Your task to perform on an android device: choose inbox layout in the gmail app Image 0: 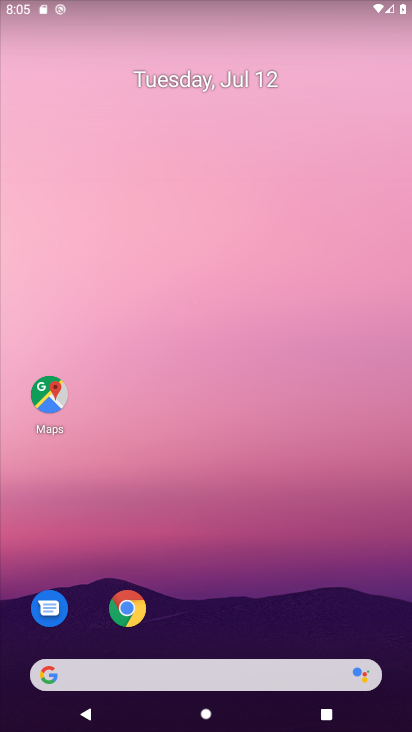
Step 0: drag from (202, 633) to (290, 219)
Your task to perform on an android device: choose inbox layout in the gmail app Image 1: 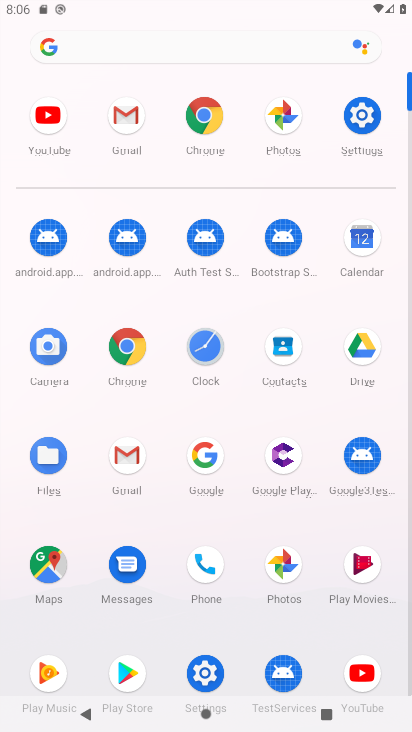
Step 1: click (127, 132)
Your task to perform on an android device: choose inbox layout in the gmail app Image 2: 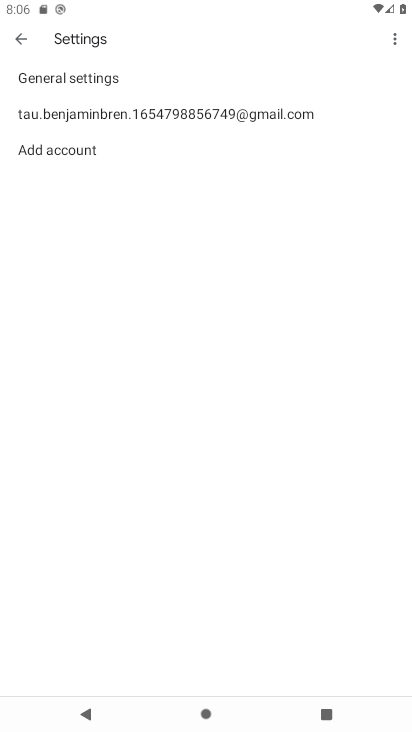
Step 2: click (148, 113)
Your task to perform on an android device: choose inbox layout in the gmail app Image 3: 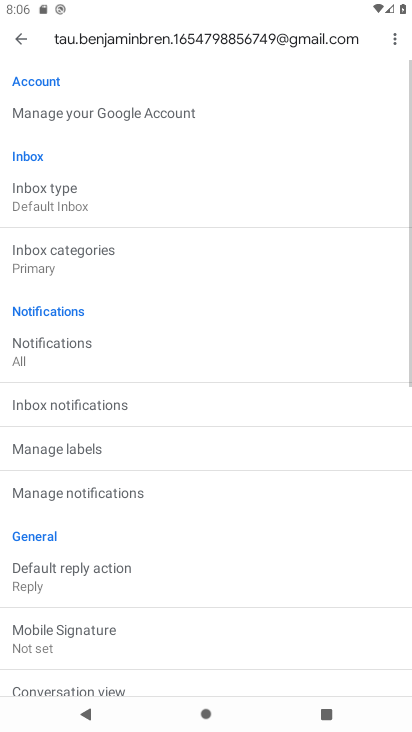
Step 3: click (54, 202)
Your task to perform on an android device: choose inbox layout in the gmail app Image 4: 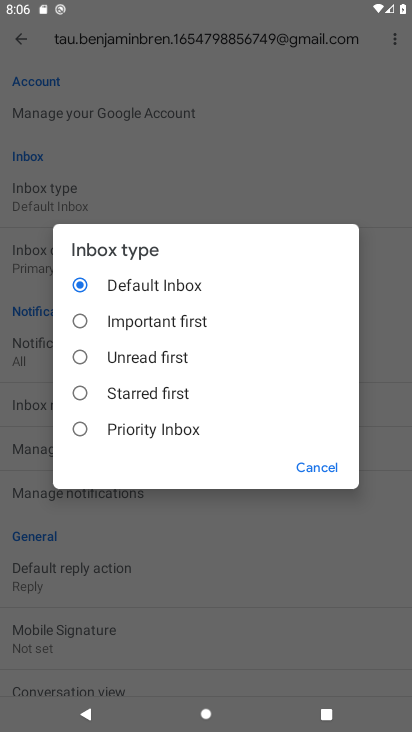
Step 4: click (78, 430)
Your task to perform on an android device: choose inbox layout in the gmail app Image 5: 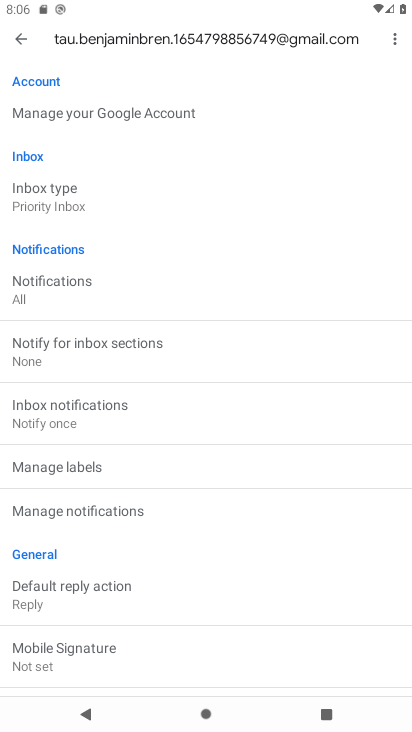
Step 5: task complete